Your task to perform on an android device: turn off smart reply in the gmail app Image 0: 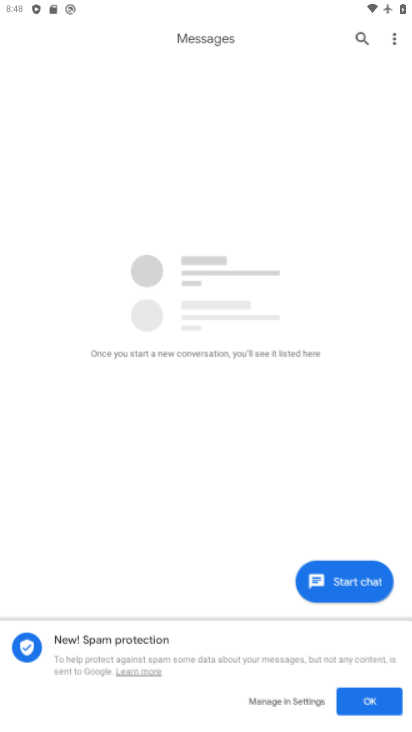
Step 0: drag from (261, 696) to (146, 86)
Your task to perform on an android device: turn off smart reply in the gmail app Image 1: 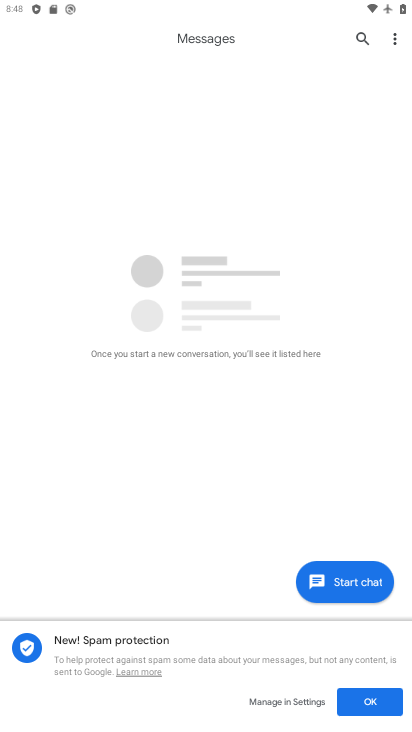
Step 1: press back button
Your task to perform on an android device: turn off smart reply in the gmail app Image 2: 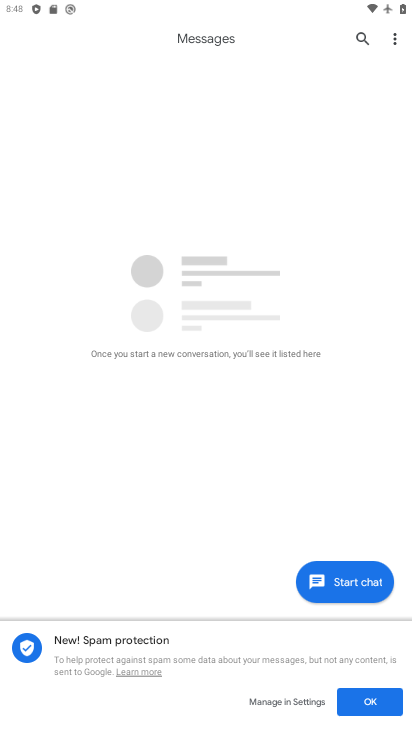
Step 2: press back button
Your task to perform on an android device: turn off smart reply in the gmail app Image 3: 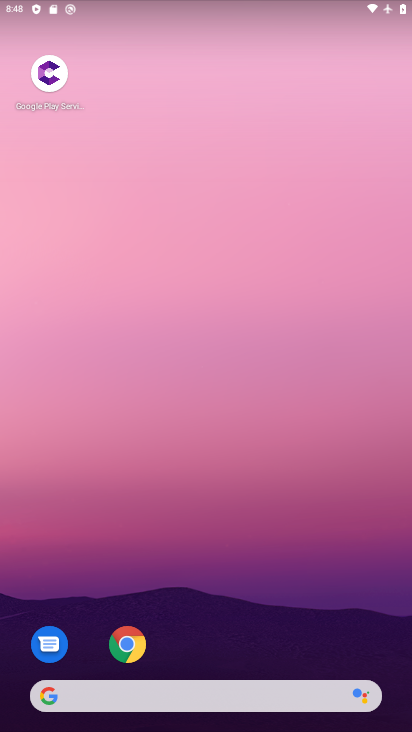
Step 3: drag from (198, 633) to (120, 88)
Your task to perform on an android device: turn off smart reply in the gmail app Image 4: 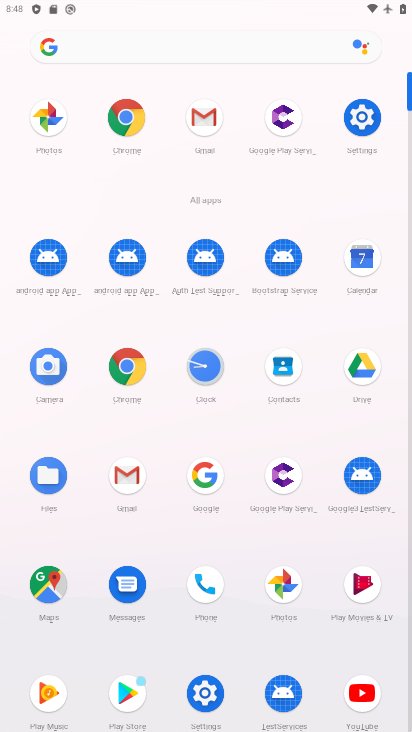
Step 4: click (210, 121)
Your task to perform on an android device: turn off smart reply in the gmail app Image 5: 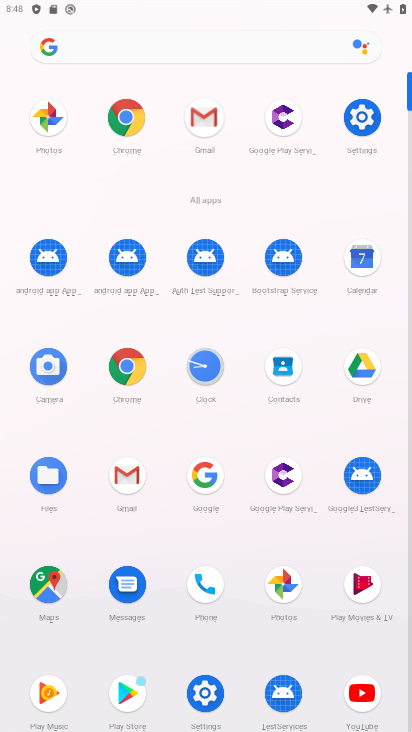
Step 5: click (211, 120)
Your task to perform on an android device: turn off smart reply in the gmail app Image 6: 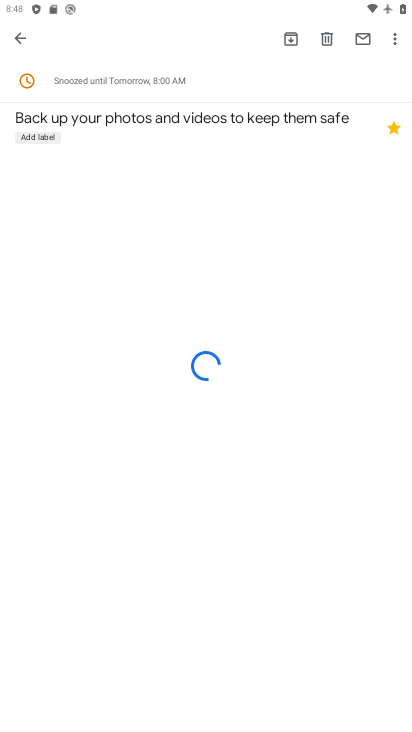
Step 6: click (16, 39)
Your task to perform on an android device: turn off smart reply in the gmail app Image 7: 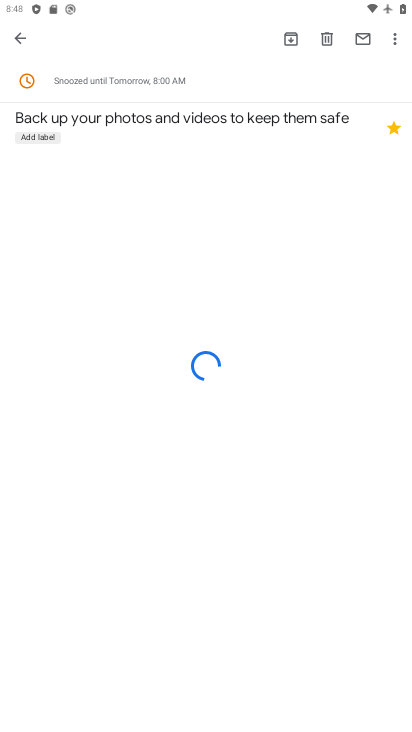
Step 7: click (16, 39)
Your task to perform on an android device: turn off smart reply in the gmail app Image 8: 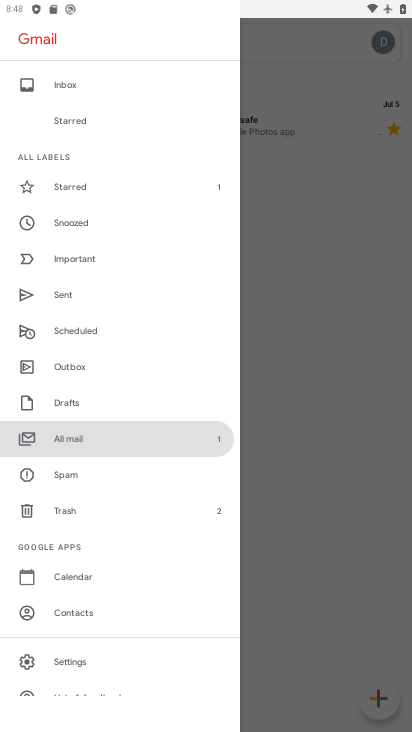
Step 8: click (66, 660)
Your task to perform on an android device: turn off smart reply in the gmail app Image 9: 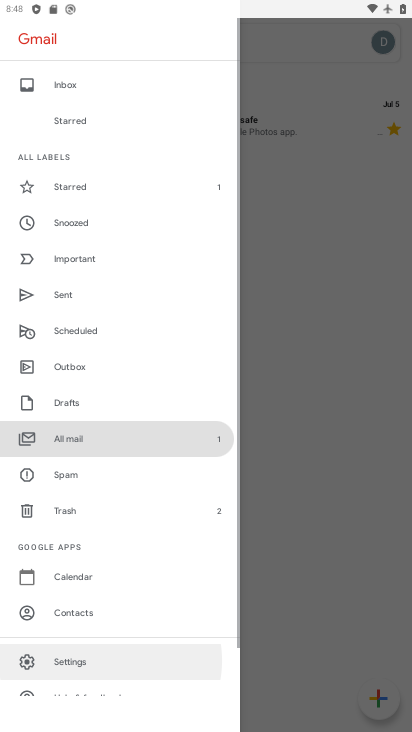
Step 9: click (66, 660)
Your task to perform on an android device: turn off smart reply in the gmail app Image 10: 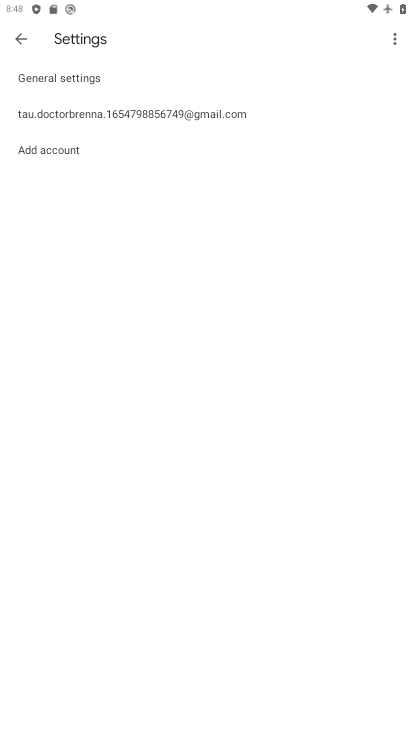
Step 10: click (111, 111)
Your task to perform on an android device: turn off smart reply in the gmail app Image 11: 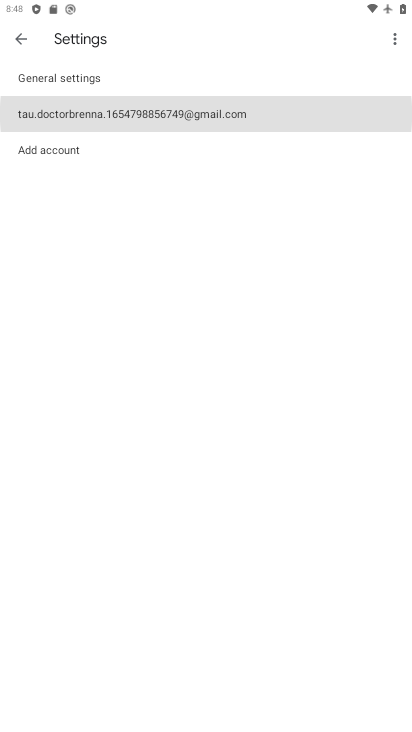
Step 11: click (111, 111)
Your task to perform on an android device: turn off smart reply in the gmail app Image 12: 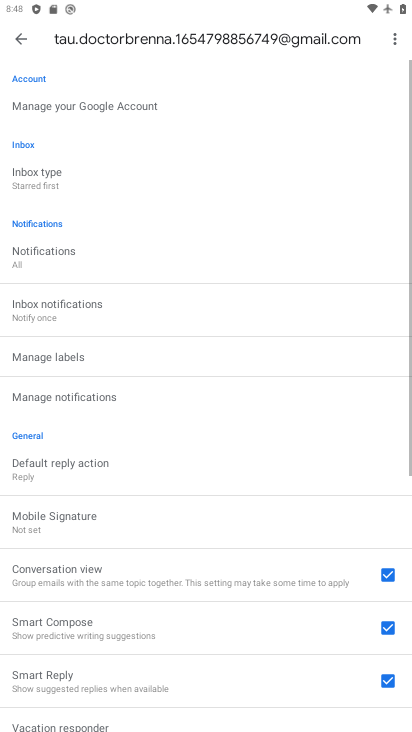
Step 12: drag from (85, 602) to (67, 140)
Your task to perform on an android device: turn off smart reply in the gmail app Image 13: 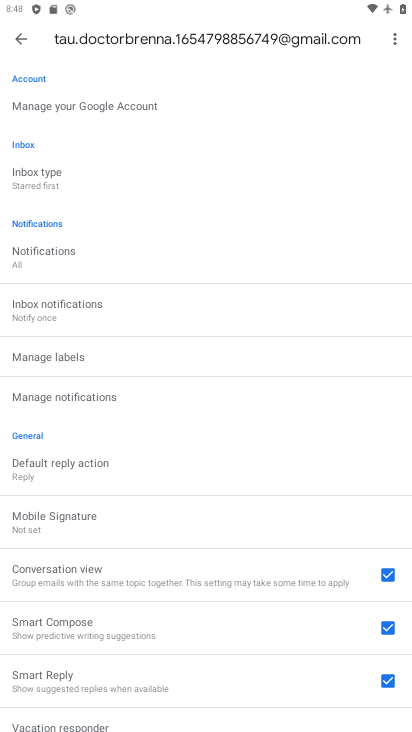
Step 13: drag from (160, 531) to (113, 204)
Your task to perform on an android device: turn off smart reply in the gmail app Image 14: 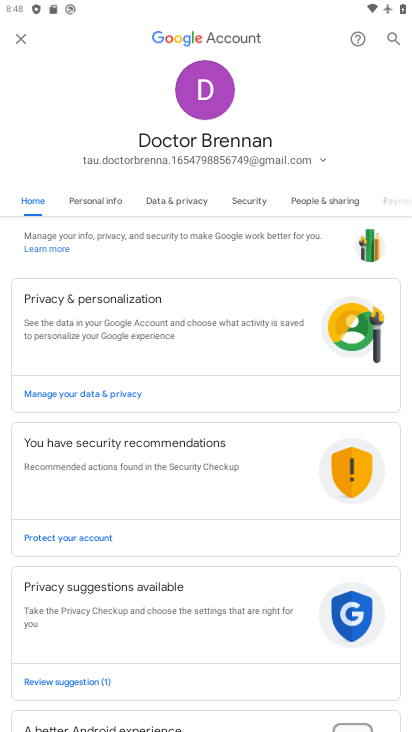
Step 14: click (21, 33)
Your task to perform on an android device: turn off smart reply in the gmail app Image 15: 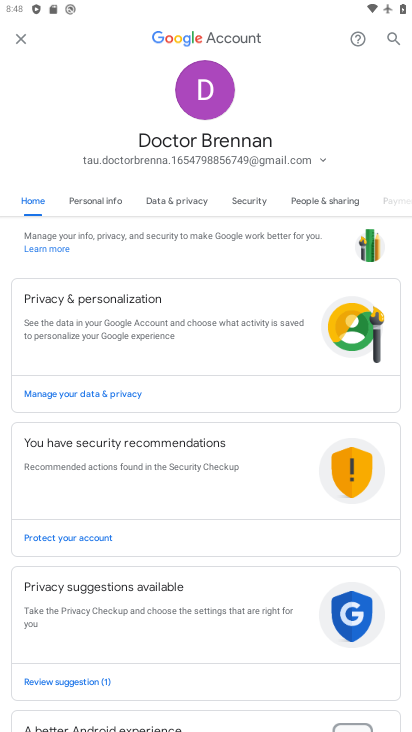
Step 15: click (22, 33)
Your task to perform on an android device: turn off smart reply in the gmail app Image 16: 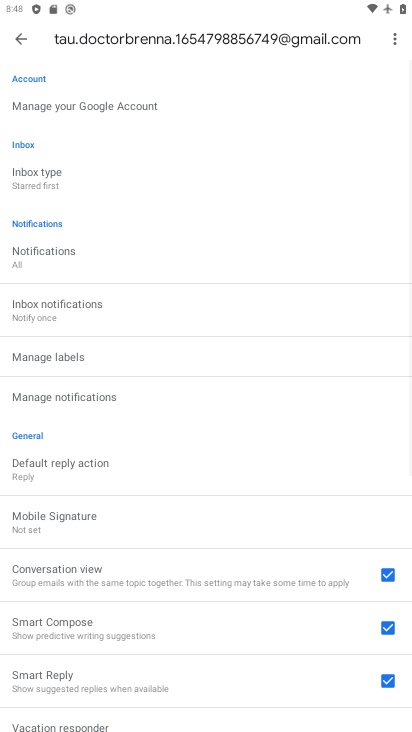
Step 16: click (76, 672)
Your task to perform on an android device: turn off smart reply in the gmail app Image 17: 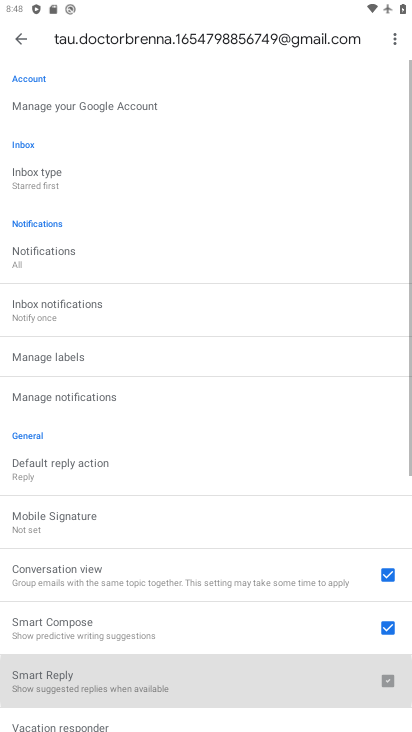
Step 17: click (76, 672)
Your task to perform on an android device: turn off smart reply in the gmail app Image 18: 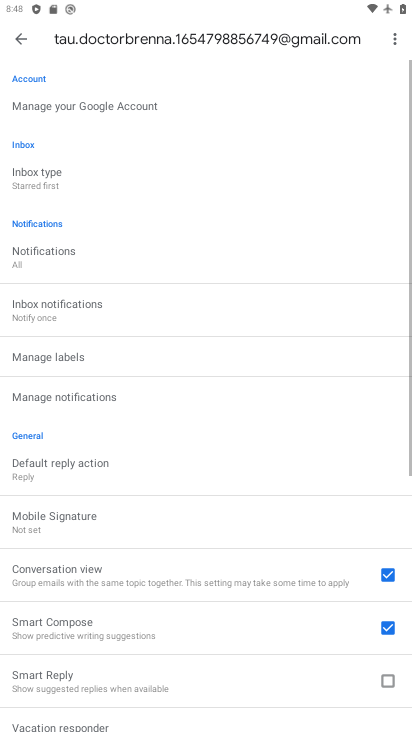
Step 18: click (76, 672)
Your task to perform on an android device: turn off smart reply in the gmail app Image 19: 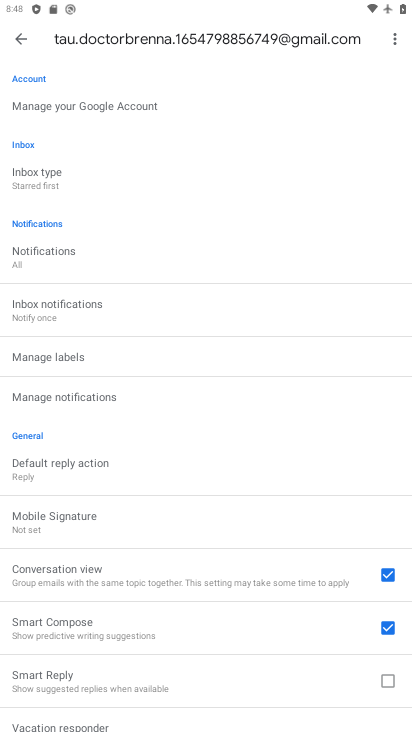
Step 19: task complete